Your task to perform on an android device: check battery use Image 0: 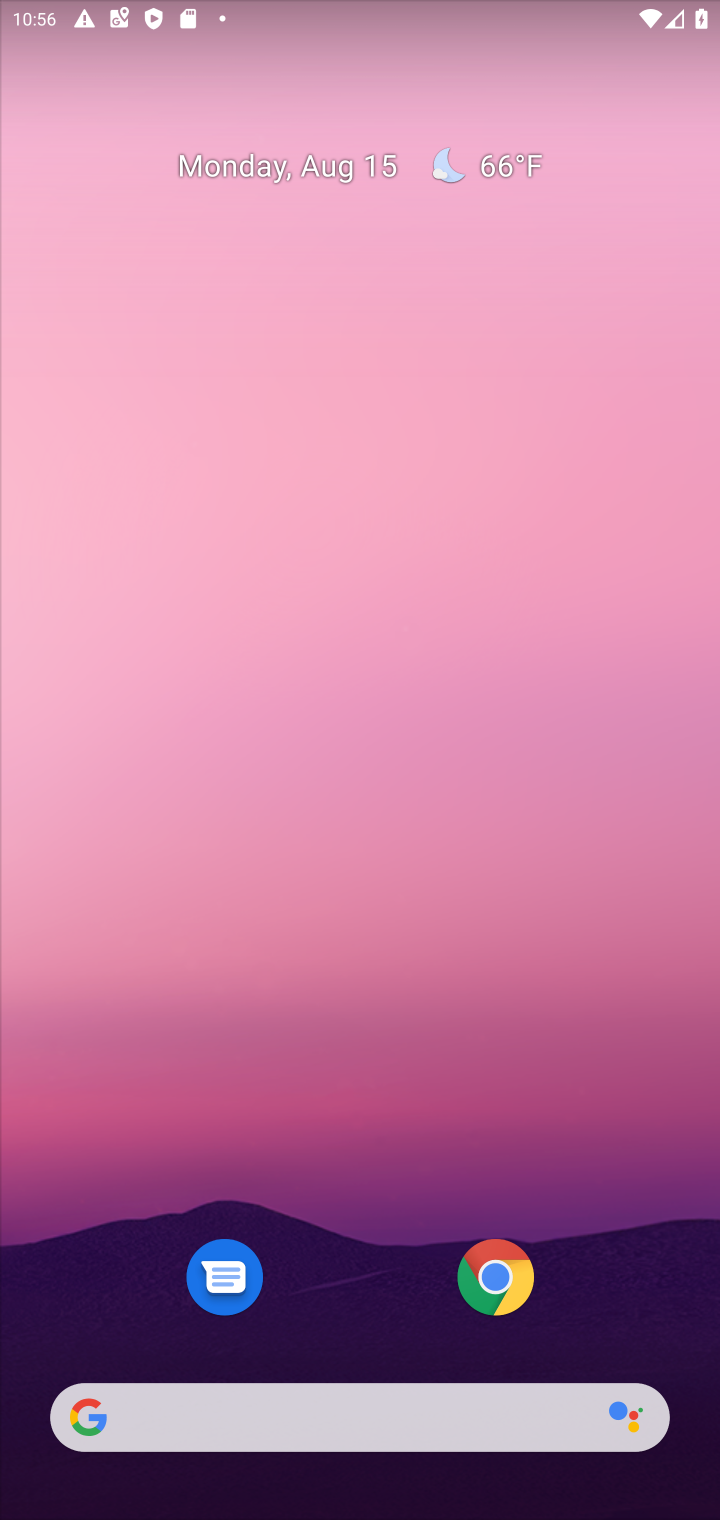
Step 0: drag from (434, 1406) to (574, 299)
Your task to perform on an android device: check battery use Image 1: 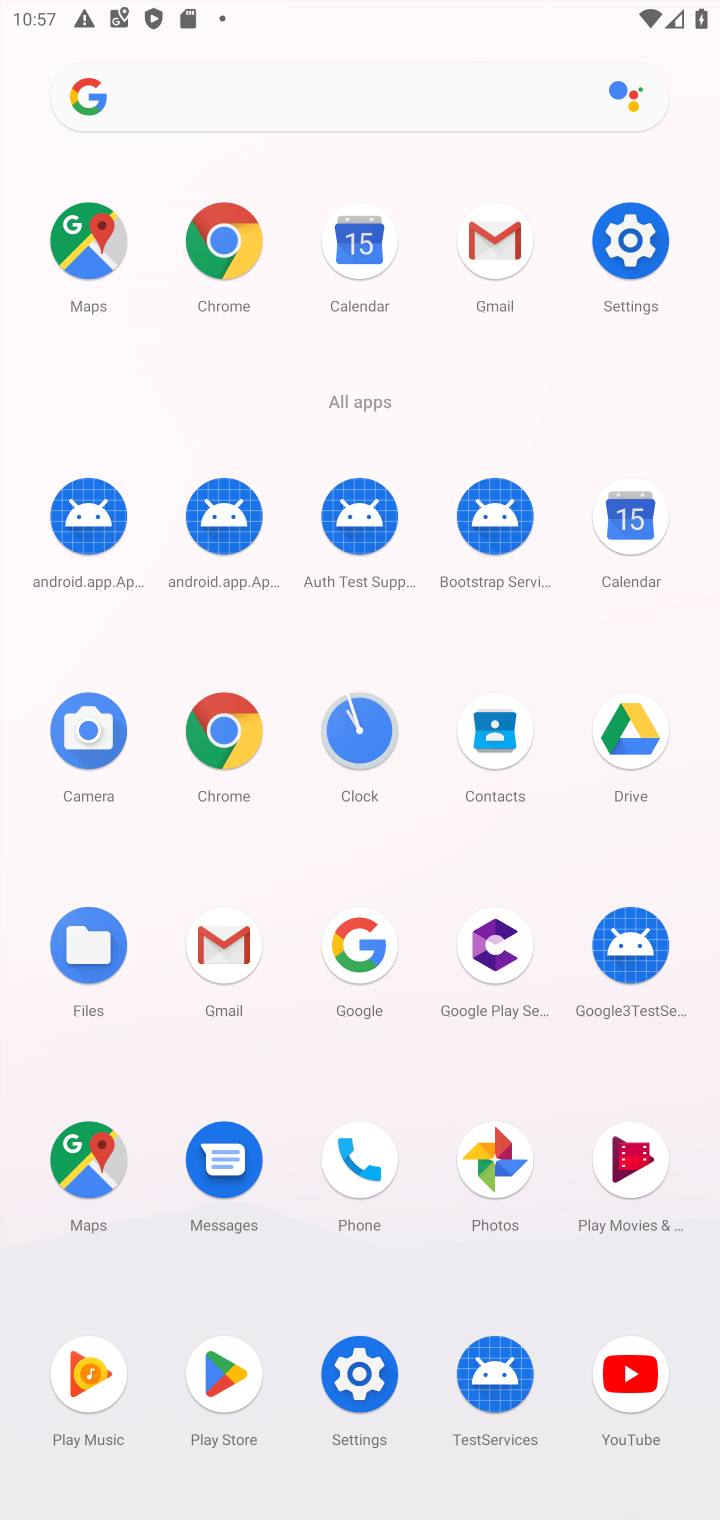
Step 1: click (628, 236)
Your task to perform on an android device: check battery use Image 2: 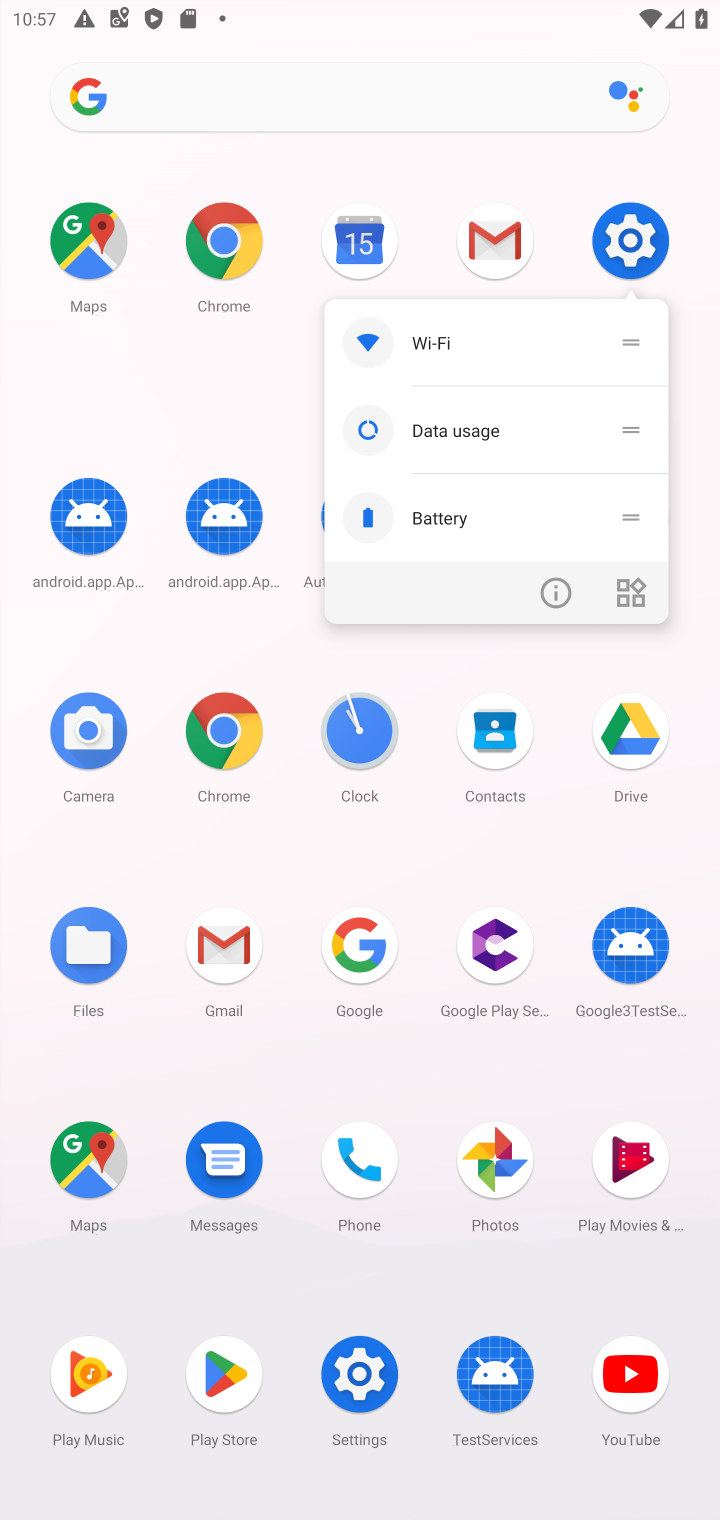
Step 2: click (620, 257)
Your task to perform on an android device: check battery use Image 3: 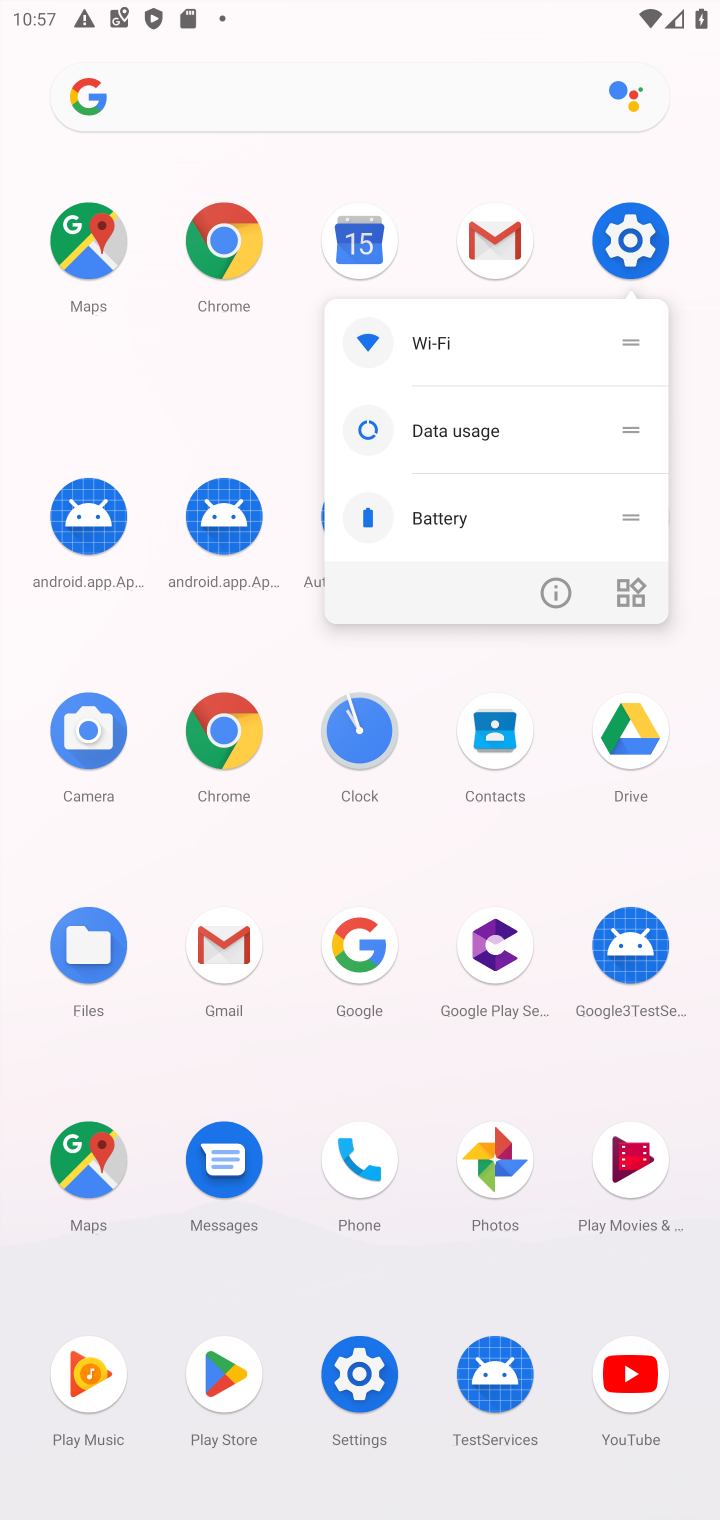
Step 3: click (620, 257)
Your task to perform on an android device: check battery use Image 4: 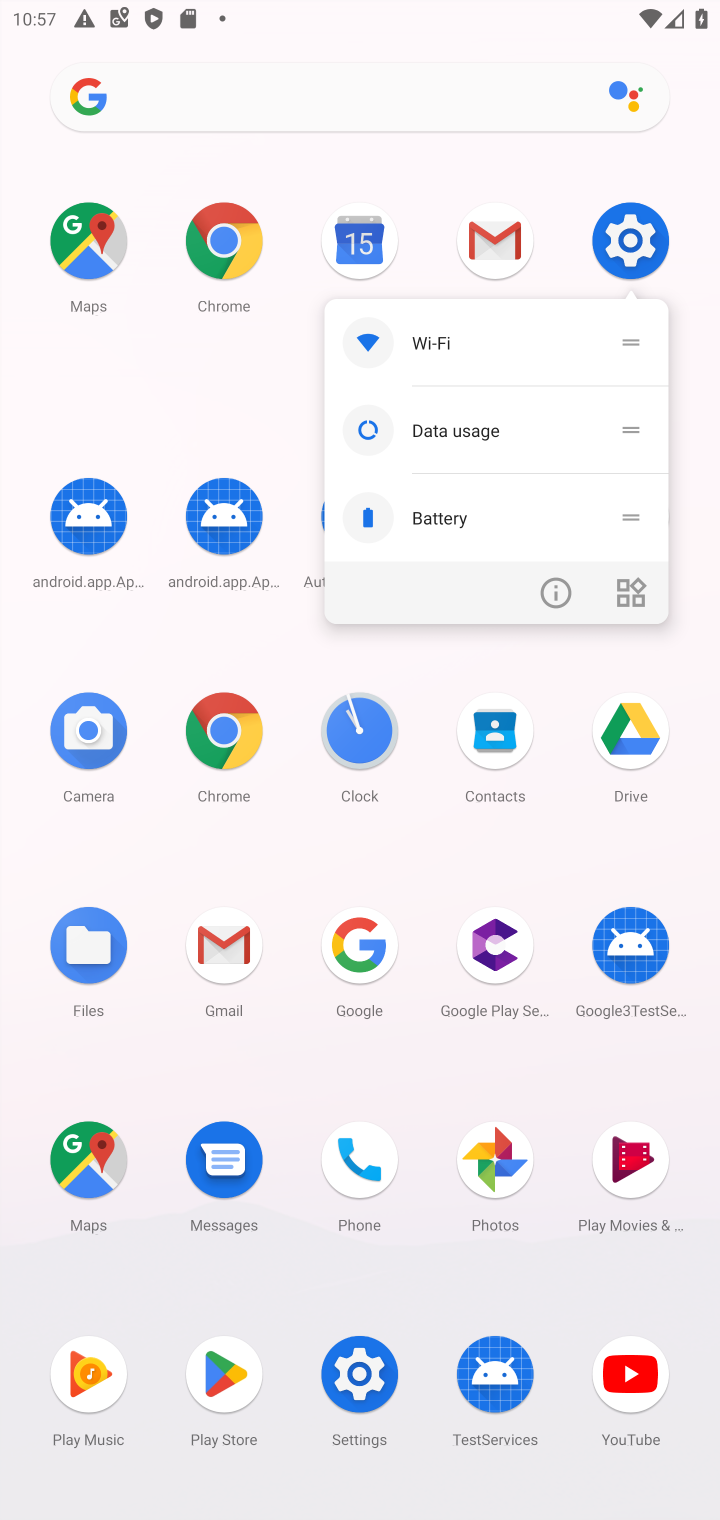
Step 4: click (620, 257)
Your task to perform on an android device: check battery use Image 5: 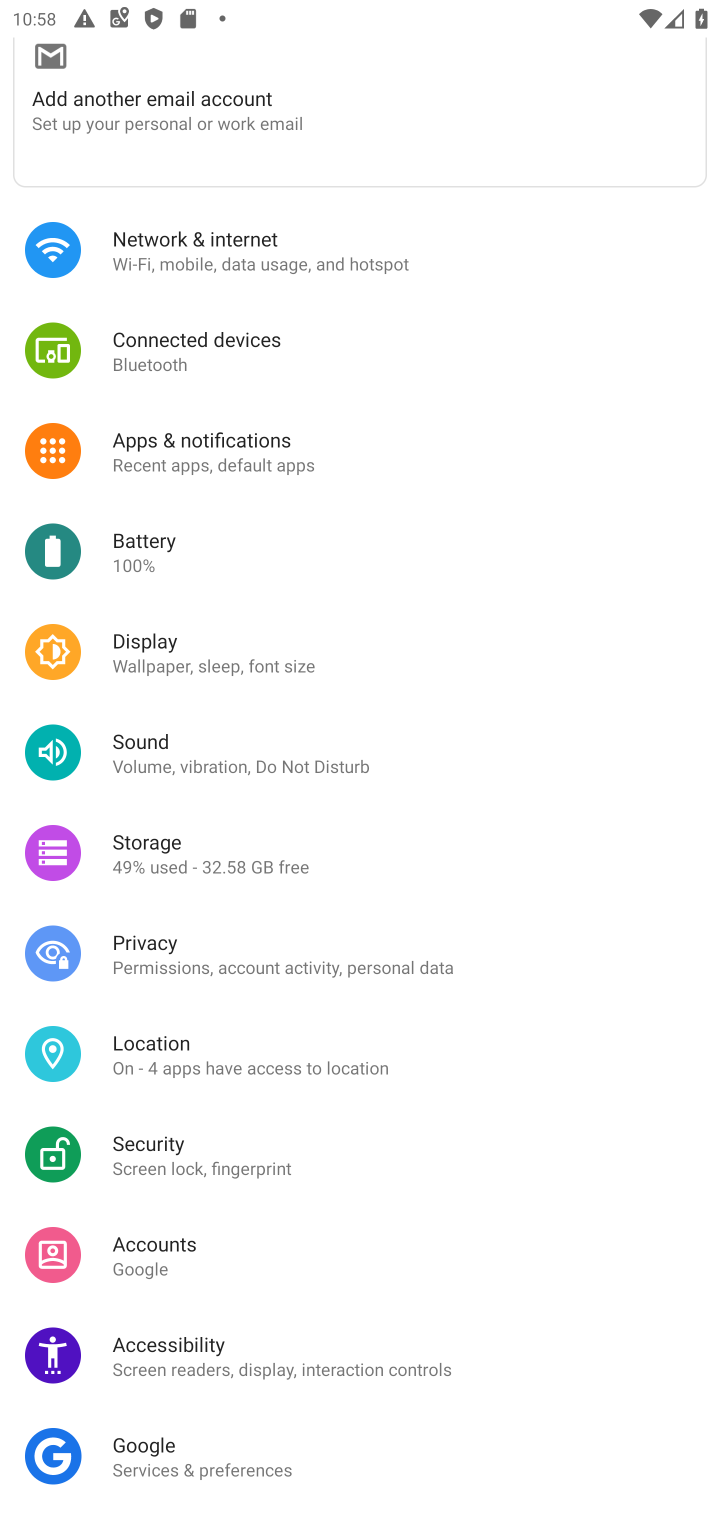
Step 5: click (196, 552)
Your task to perform on an android device: check battery use Image 6: 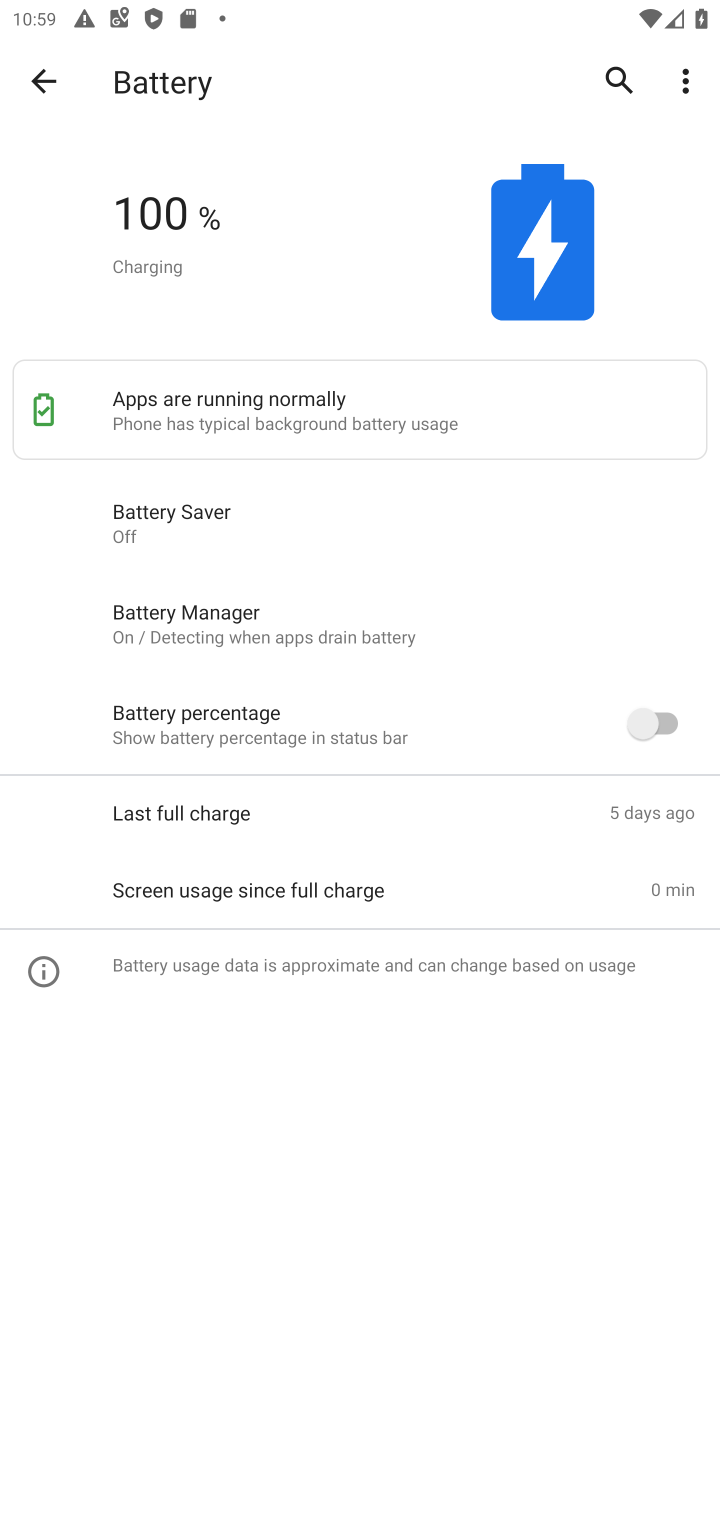
Step 6: click (682, 79)
Your task to perform on an android device: check battery use Image 7: 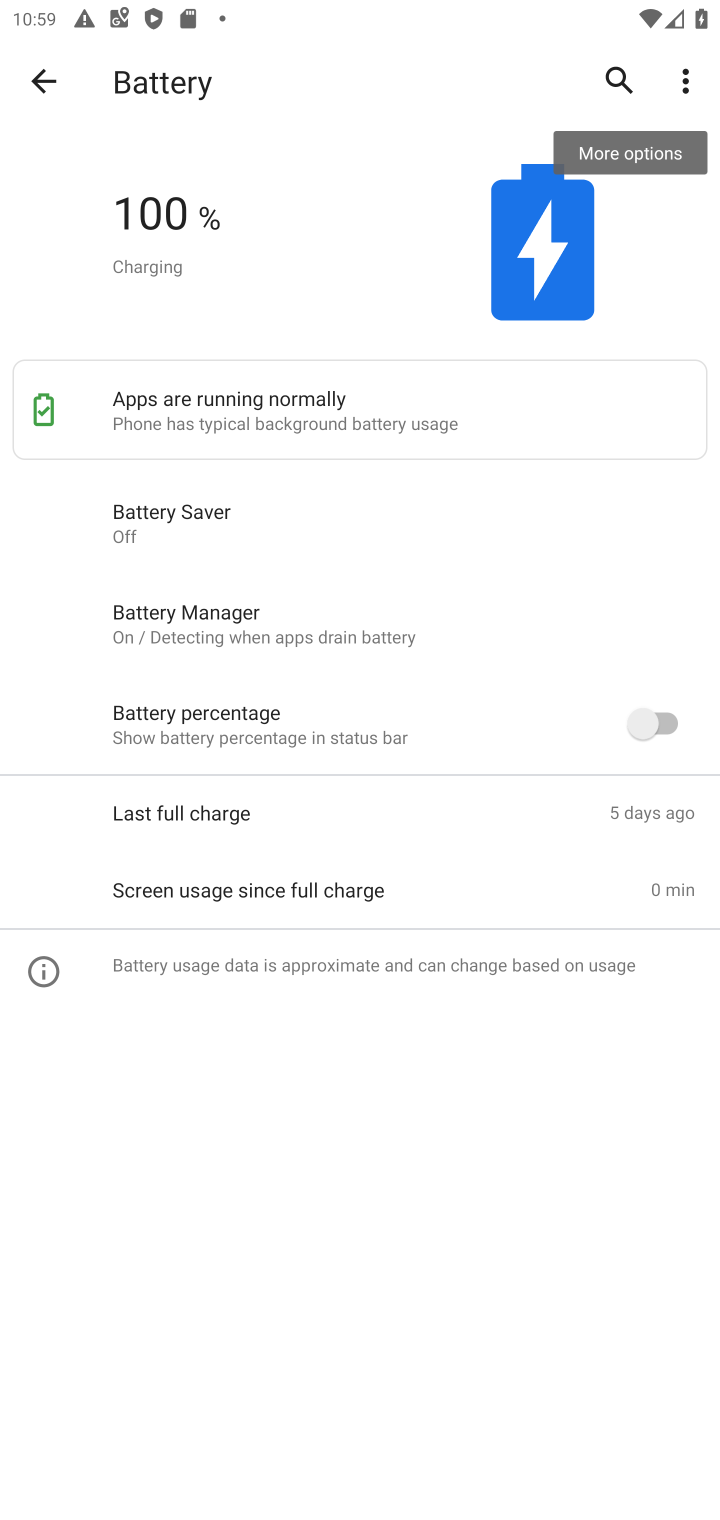
Step 7: click (682, 79)
Your task to perform on an android device: check battery use Image 8: 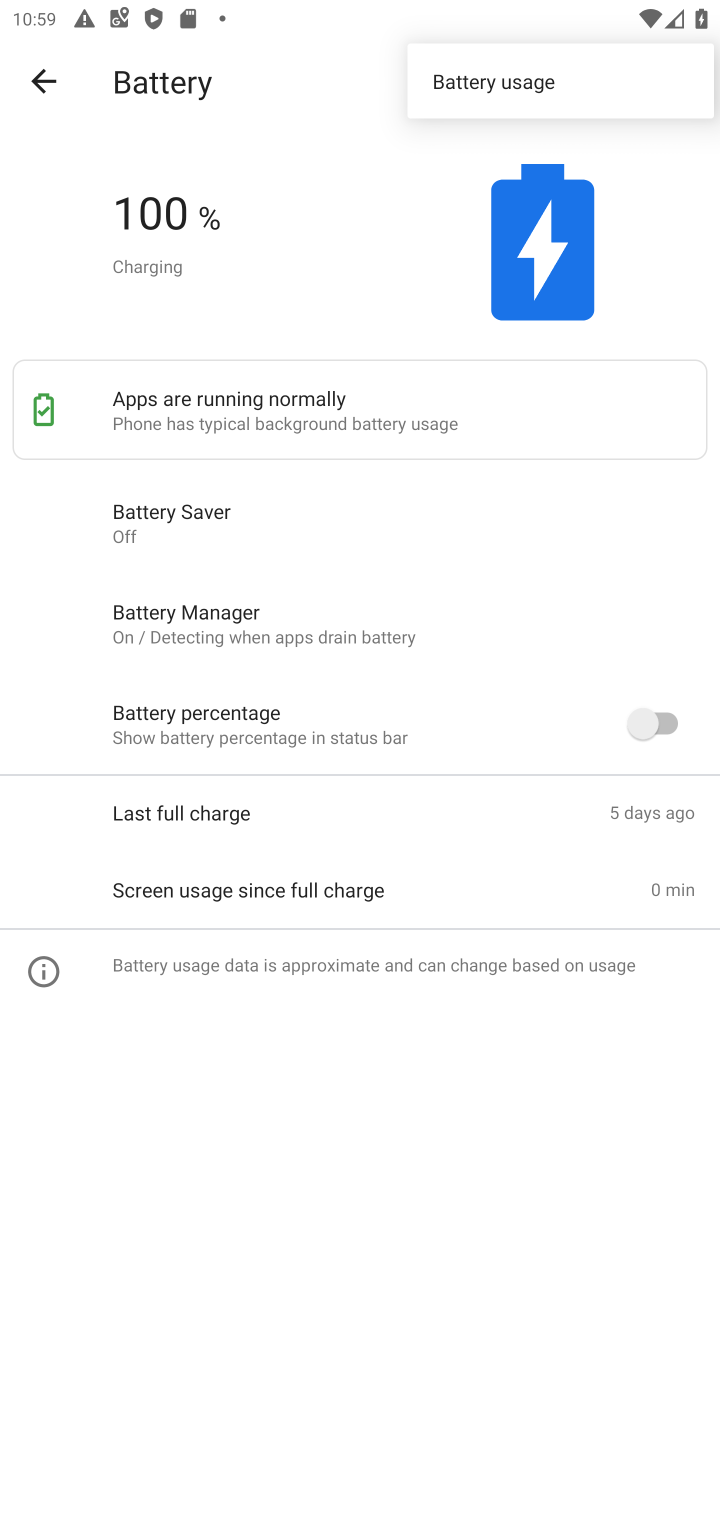
Step 8: click (682, 79)
Your task to perform on an android device: check battery use Image 9: 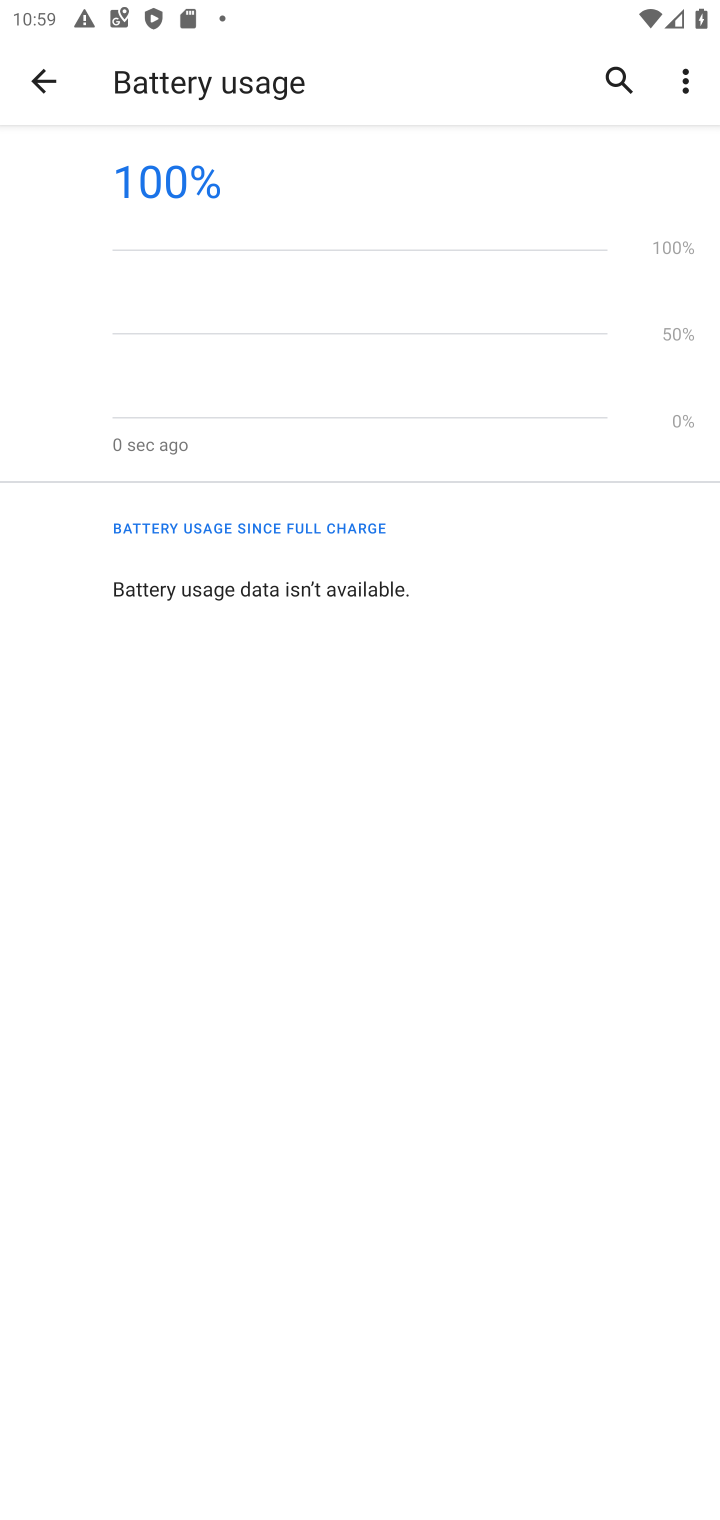
Step 9: task complete